Your task to perform on an android device: stop showing notifications on the lock screen Image 0: 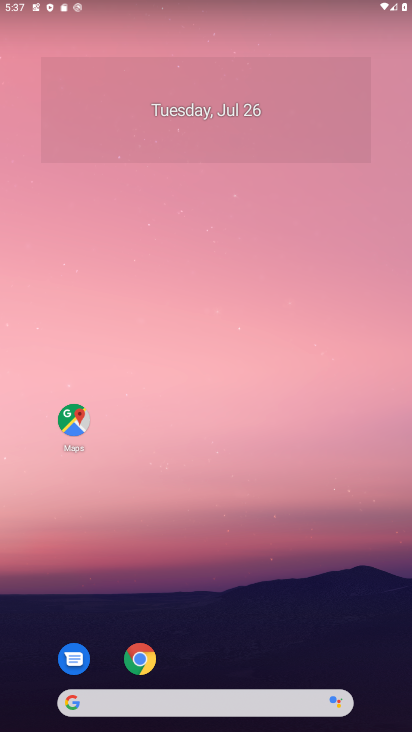
Step 0: drag from (266, 598) to (280, 63)
Your task to perform on an android device: stop showing notifications on the lock screen Image 1: 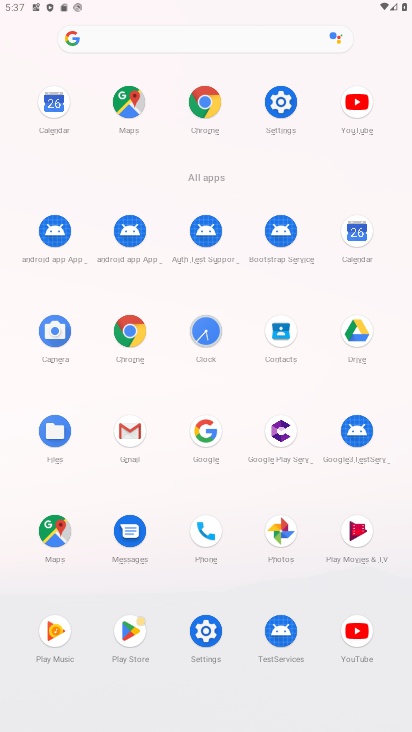
Step 1: click (206, 628)
Your task to perform on an android device: stop showing notifications on the lock screen Image 2: 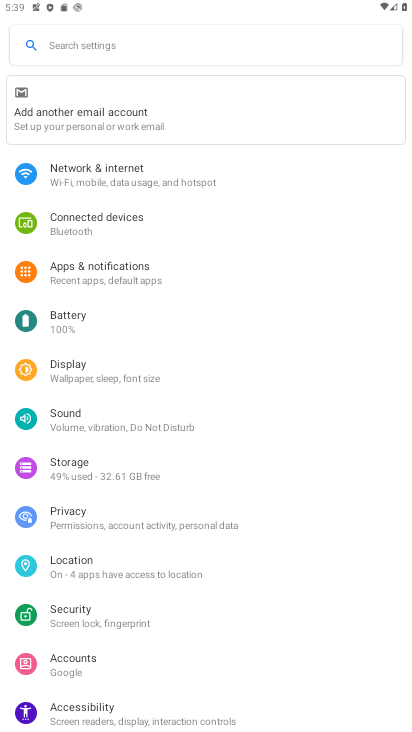
Step 2: task complete